Your task to perform on an android device: Go to notification settings Image 0: 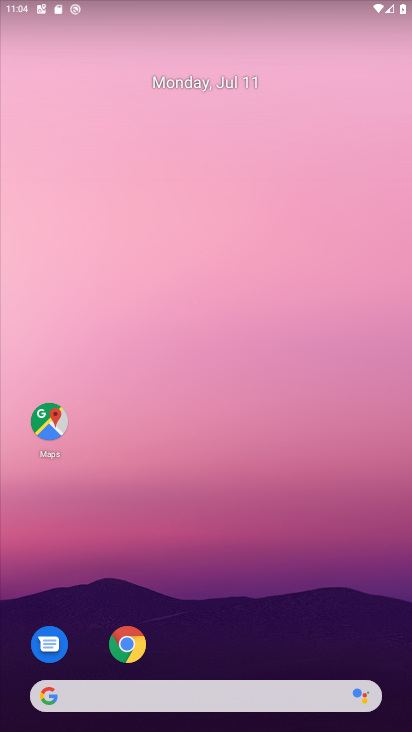
Step 0: drag from (294, 601) to (287, 93)
Your task to perform on an android device: Go to notification settings Image 1: 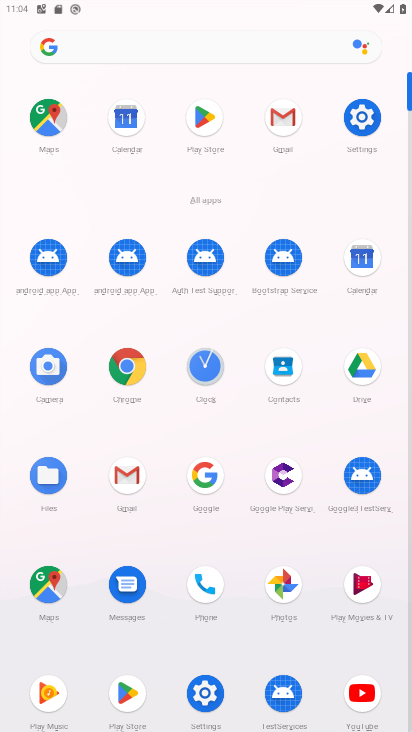
Step 1: click (360, 112)
Your task to perform on an android device: Go to notification settings Image 2: 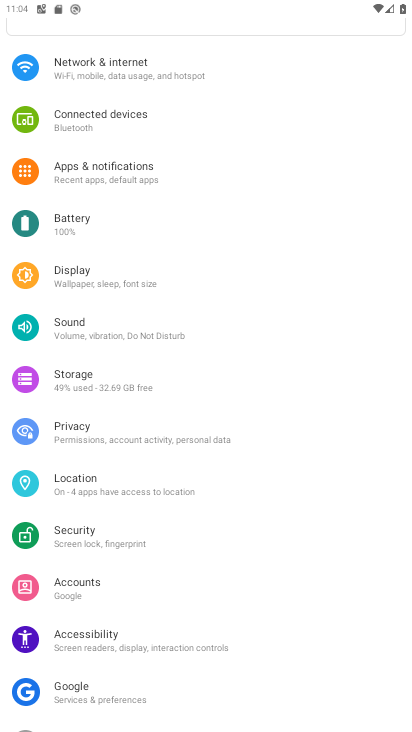
Step 2: click (99, 173)
Your task to perform on an android device: Go to notification settings Image 3: 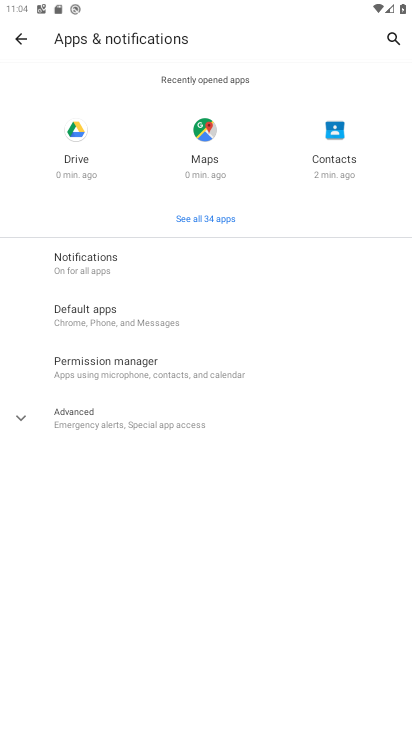
Step 3: click (91, 267)
Your task to perform on an android device: Go to notification settings Image 4: 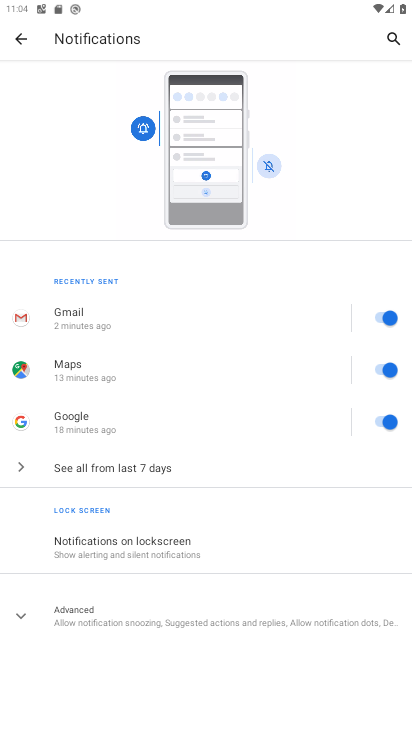
Step 4: task complete